Your task to perform on an android device: Open Google Chrome and open the bookmarks view Image 0: 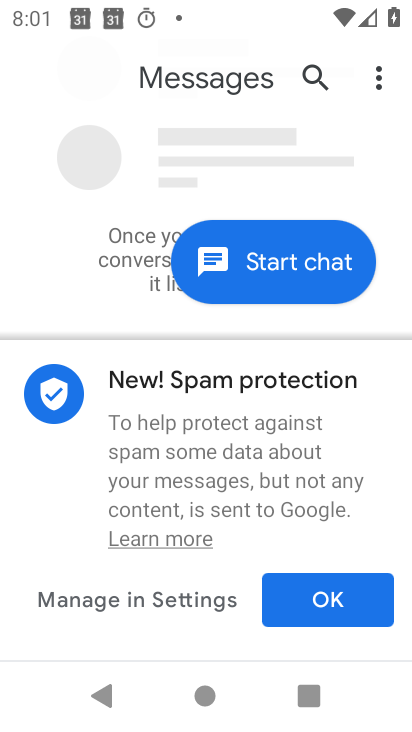
Step 0: press home button
Your task to perform on an android device: Open Google Chrome and open the bookmarks view Image 1: 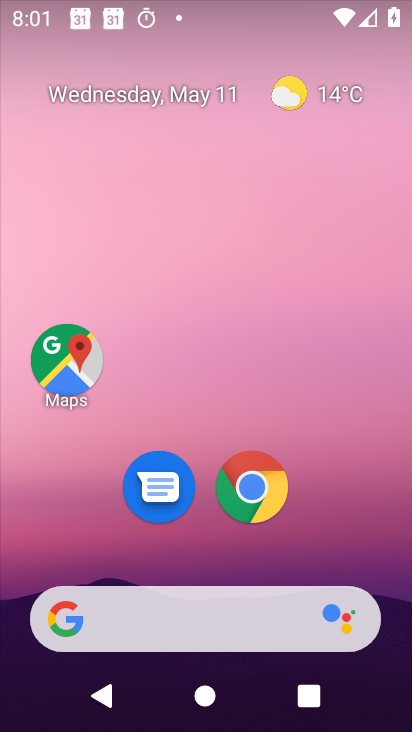
Step 1: click (250, 494)
Your task to perform on an android device: Open Google Chrome and open the bookmarks view Image 2: 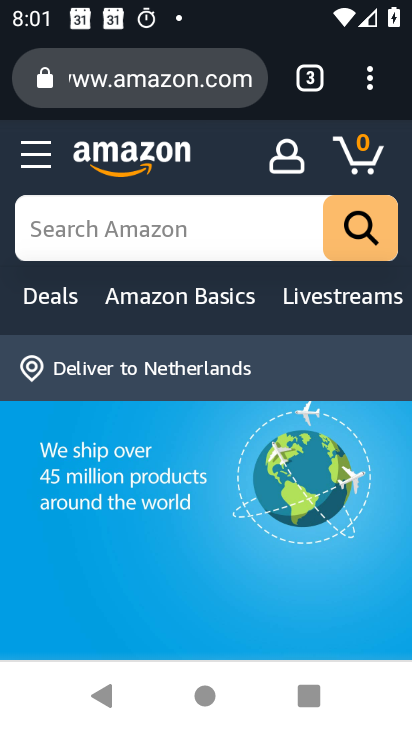
Step 2: click (370, 87)
Your task to perform on an android device: Open Google Chrome and open the bookmarks view Image 3: 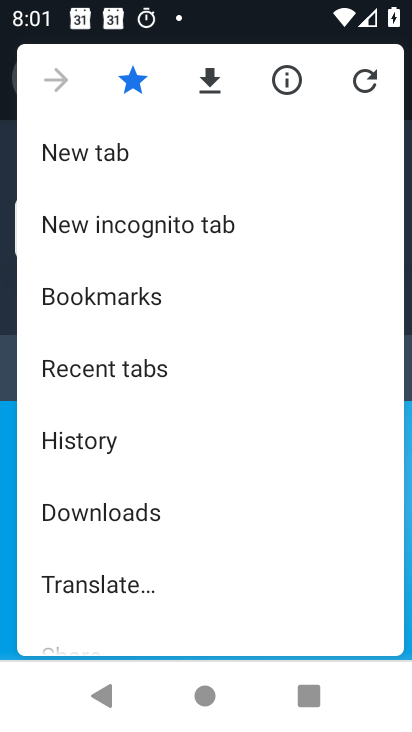
Step 3: click (119, 299)
Your task to perform on an android device: Open Google Chrome and open the bookmarks view Image 4: 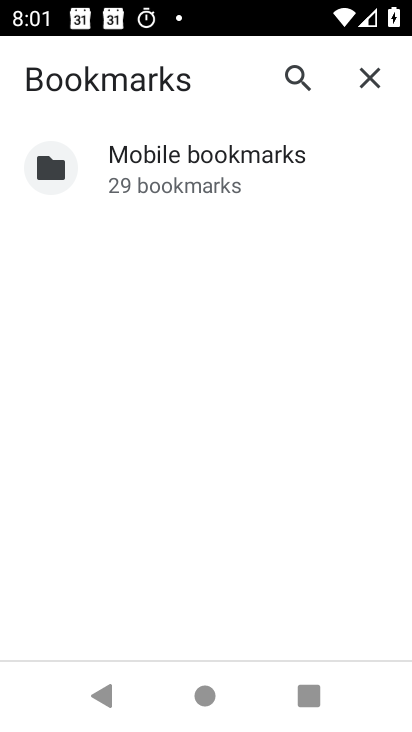
Step 4: click (147, 166)
Your task to perform on an android device: Open Google Chrome and open the bookmarks view Image 5: 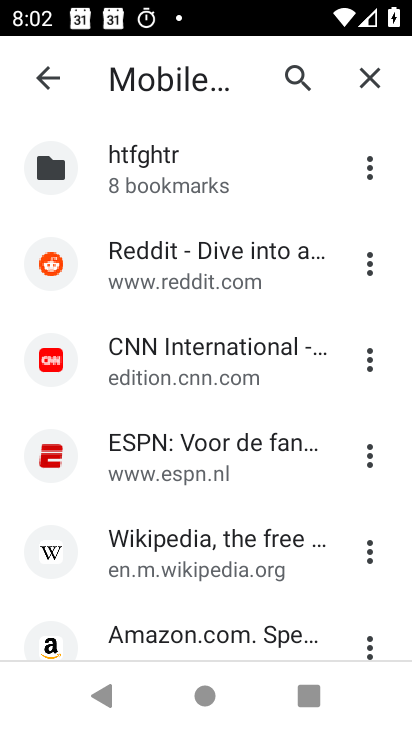
Step 5: task complete